Your task to perform on an android device: Go to calendar. Show me events next week Image 0: 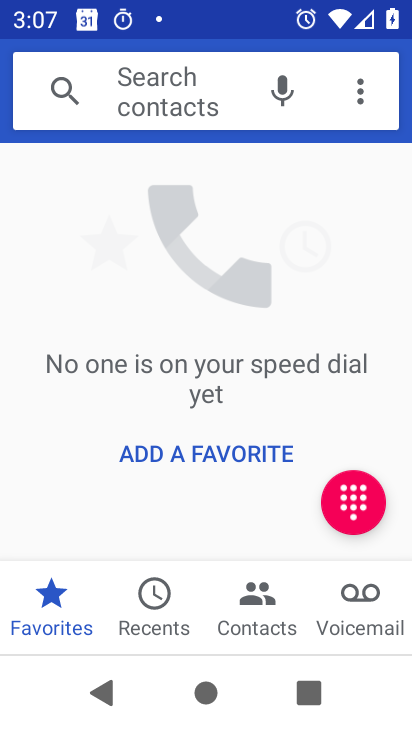
Step 0: press home button
Your task to perform on an android device: Go to calendar. Show me events next week Image 1: 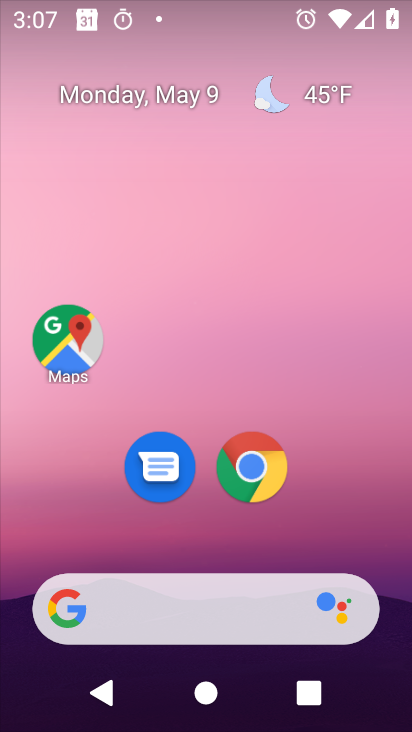
Step 1: drag from (346, 403) to (361, 86)
Your task to perform on an android device: Go to calendar. Show me events next week Image 2: 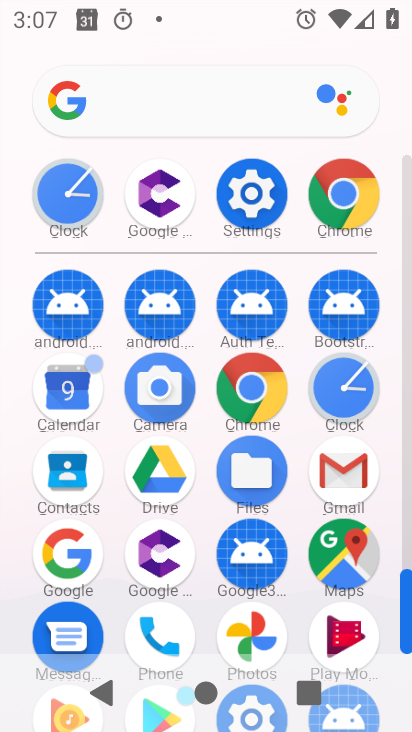
Step 2: click (69, 394)
Your task to perform on an android device: Go to calendar. Show me events next week Image 3: 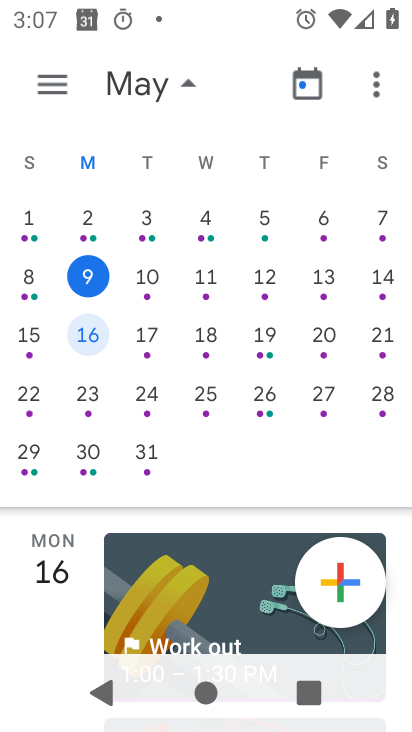
Step 3: click (147, 330)
Your task to perform on an android device: Go to calendar. Show me events next week Image 4: 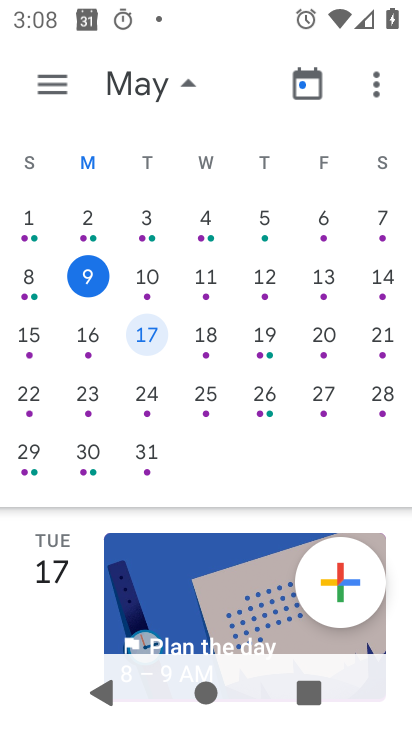
Step 4: task complete